Your task to perform on an android device: Go to notification settings Image 0: 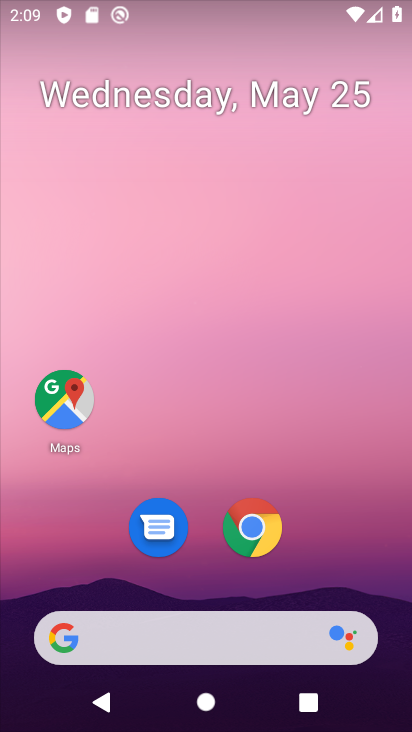
Step 0: drag from (189, 547) to (264, 179)
Your task to perform on an android device: Go to notification settings Image 1: 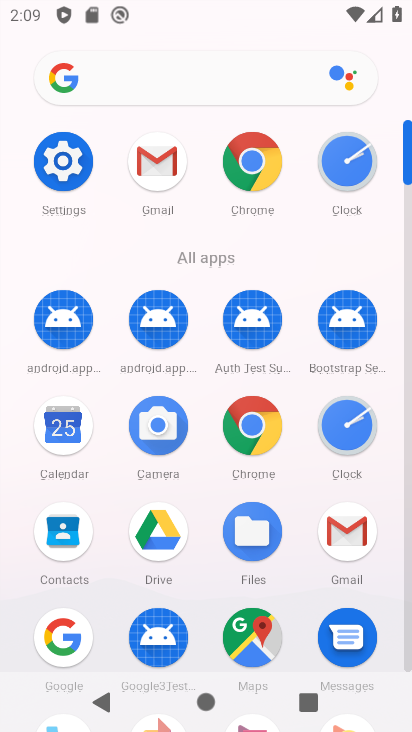
Step 1: click (27, 166)
Your task to perform on an android device: Go to notification settings Image 2: 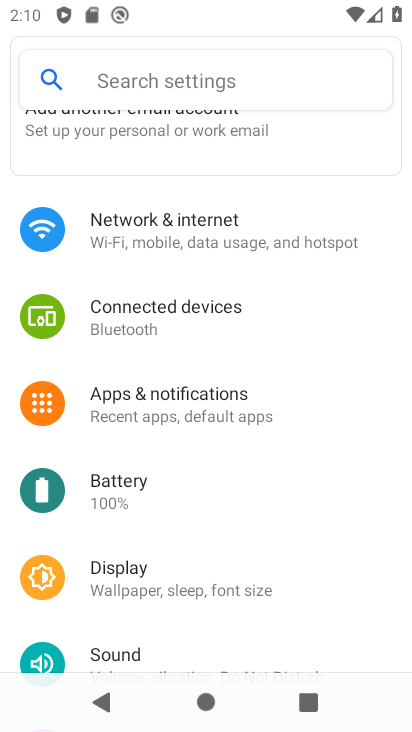
Step 2: click (241, 396)
Your task to perform on an android device: Go to notification settings Image 3: 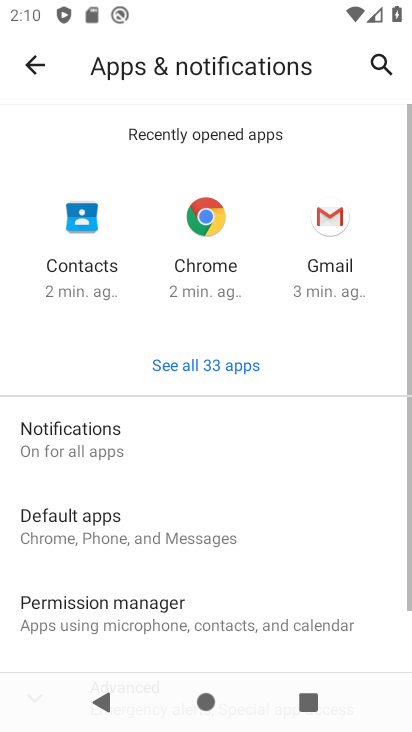
Step 3: task complete